Your task to perform on an android device: Open Youtube and go to the subscriptions tab Image 0: 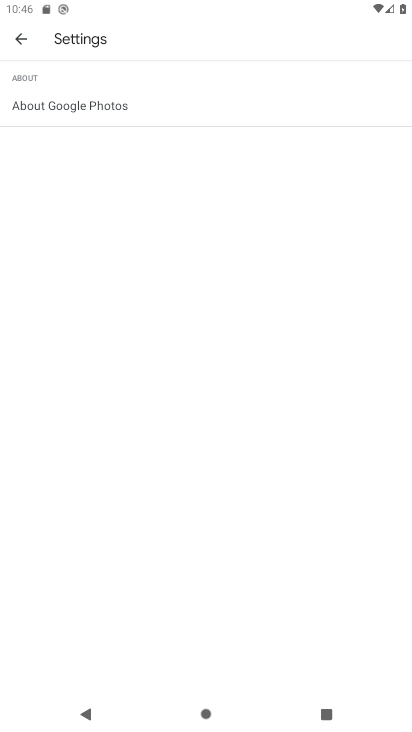
Step 0: press home button
Your task to perform on an android device: Open Youtube and go to the subscriptions tab Image 1: 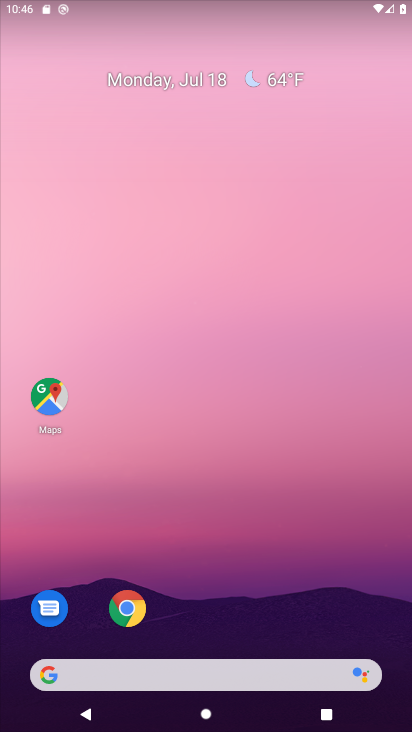
Step 1: drag from (63, 570) to (314, 79)
Your task to perform on an android device: Open Youtube and go to the subscriptions tab Image 2: 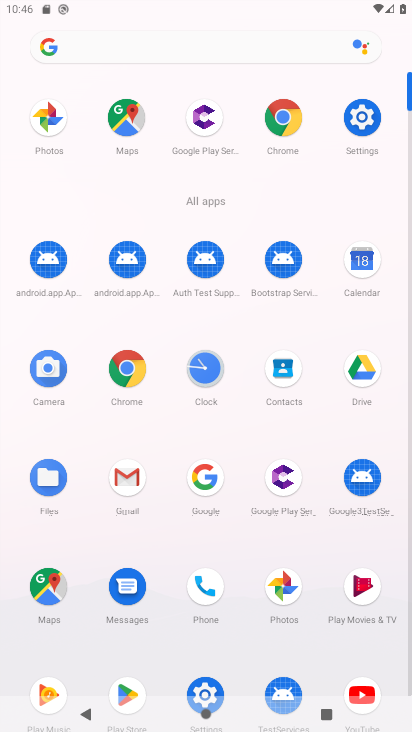
Step 2: click (362, 685)
Your task to perform on an android device: Open Youtube and go to the subscriptions tab Image 3: 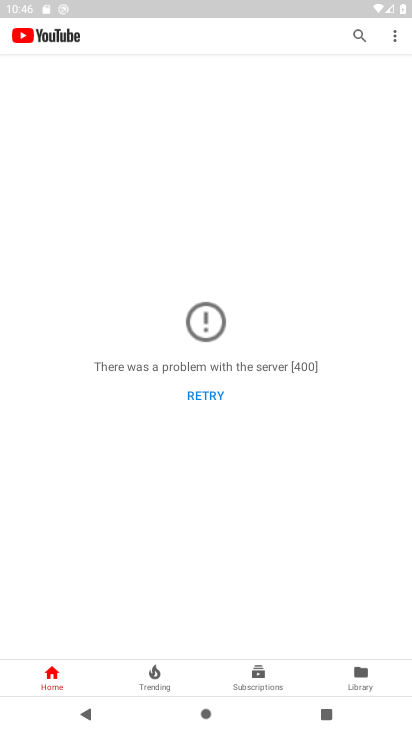
Step 3: task complete